Your task to perform on an android device: Turn on the flashlight Image 0: 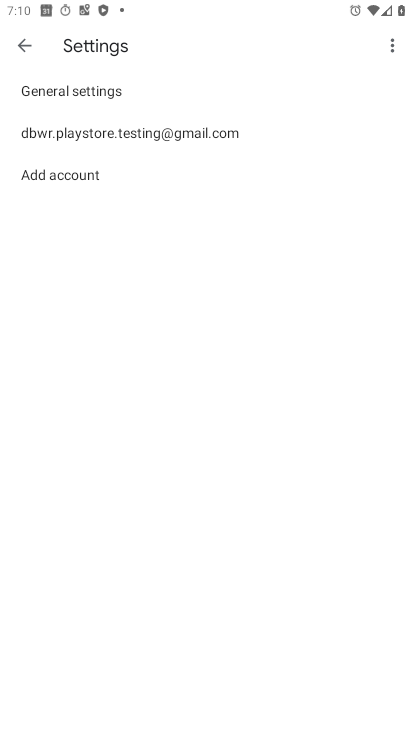
Step 0: press home button
Your task to perform on an android device: Turn on the flashlight Image 1: 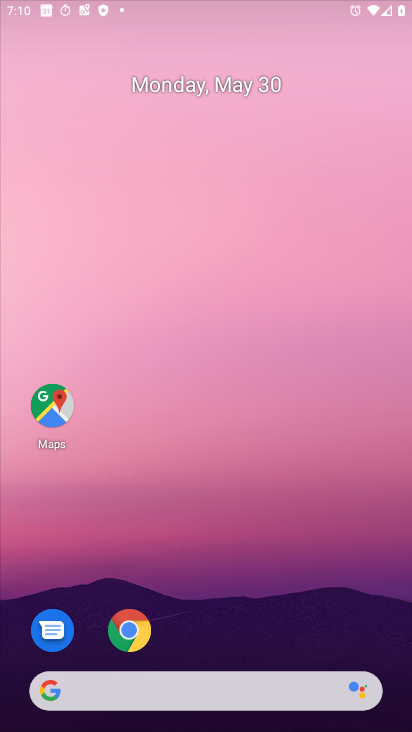
Step 1: drag from (351, 611) to (210, 0)
Your task to perform on an android device: Turn on the flashlight Image 2: 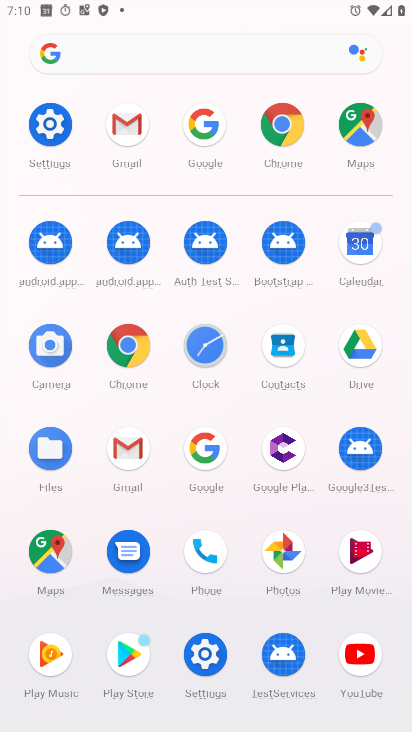
Step 2: click (49, 130)
Your task to perform on an android device: Turn on the flashlight Image 3: 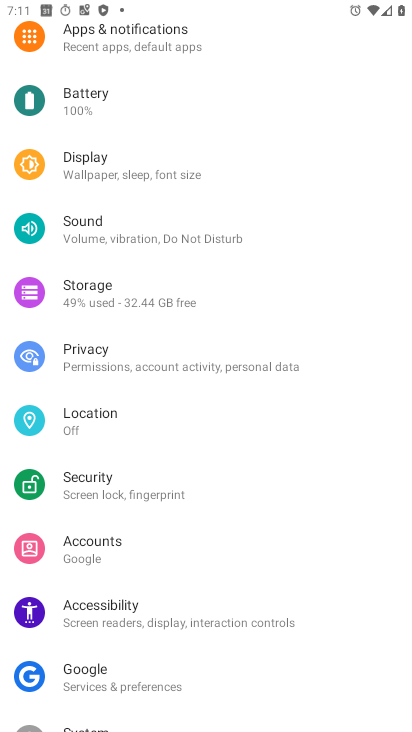
Step 3: task complete